Your task to perform on an android device: remove spam from my inbox in the gmail app Image 0: 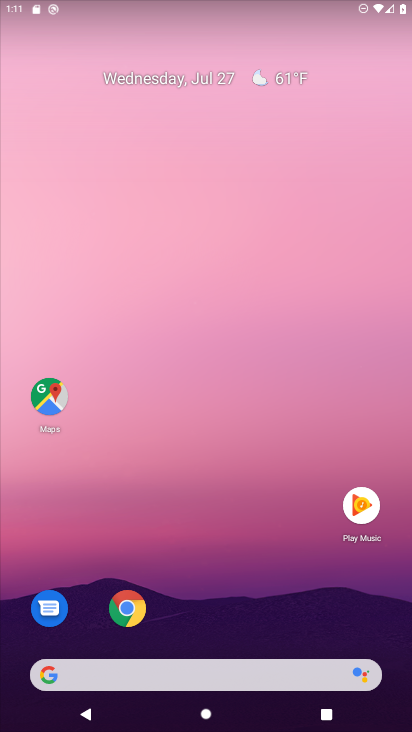
Step 0: press home button
Your task to perform on an android device: remove spam from my inbox in the gmail app Image 1: 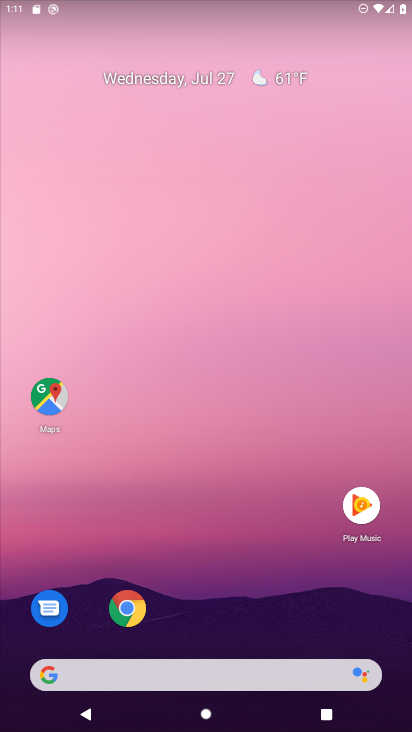
Step 1: drag from (271, 610) to (300, 236)
Your task to perform on an android device: remove spam from my inbox in the gmail app Image 2: 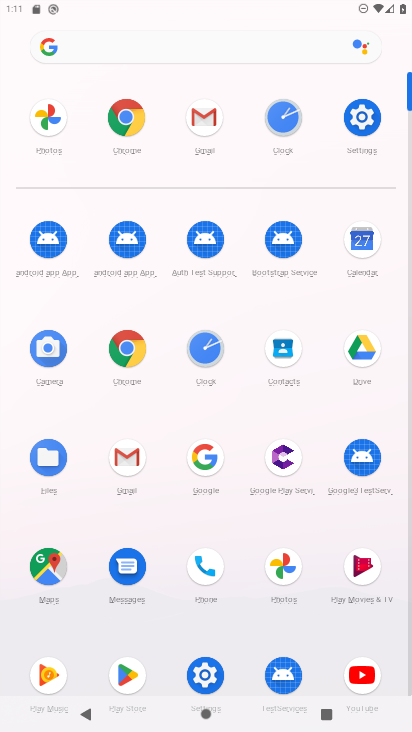
Step 2: click (129, 459)
Your task to perform on an android device: remove spam from my inbox in the gmail app Image 3: 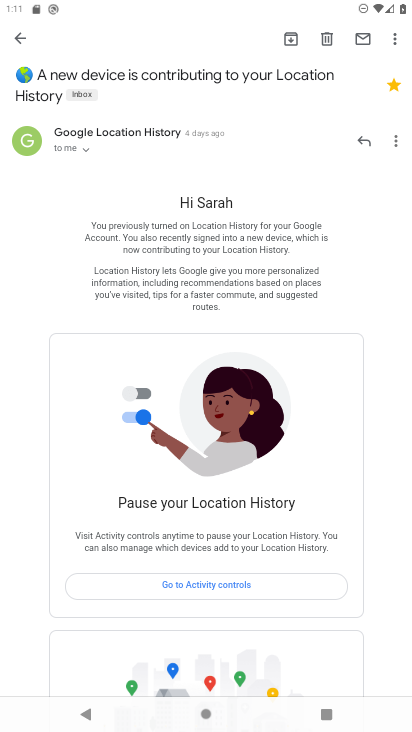
Step 3: press back button
Your task to perform on an android device: remove spam from my inbox in the gmail app Image 4: 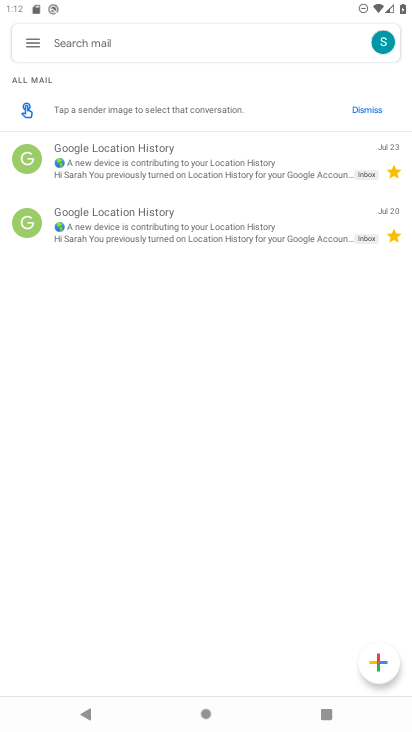
Step 4: click (30, 47)
Your task to perform on an android device: remove spam from my inbox in the gmail app Image 5: 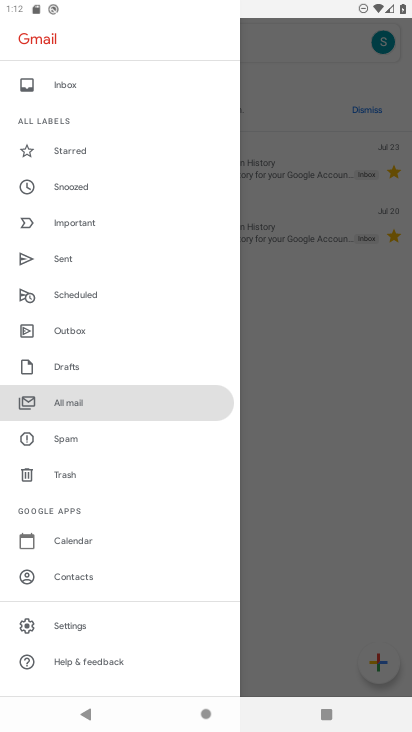
Step 5: click (129, 440)
Your task to perform on an android device: remove spam from my inbox in the gmail app Image 6: 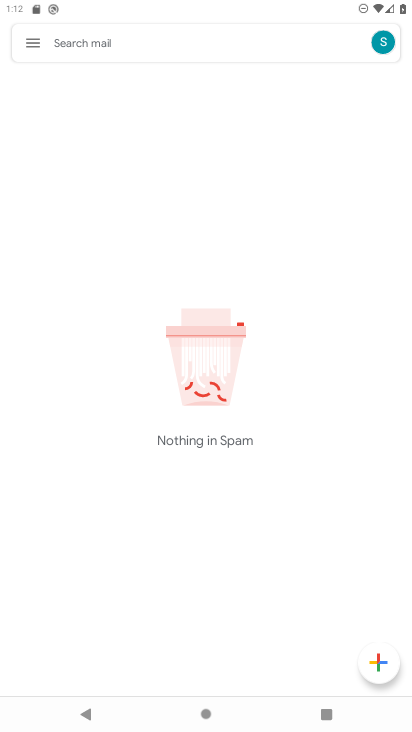
Step 6: task complete